Your task to perform on an android device: turn off smart reply in the gmail app Image 0: 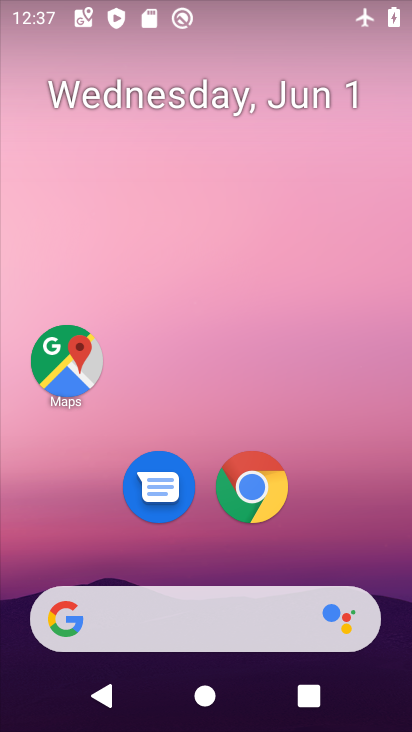
Step 0: drag from (342, 540) to (323, 142)
Your task to perform on an android device: turn off smart reply in the gmail app Image 1: 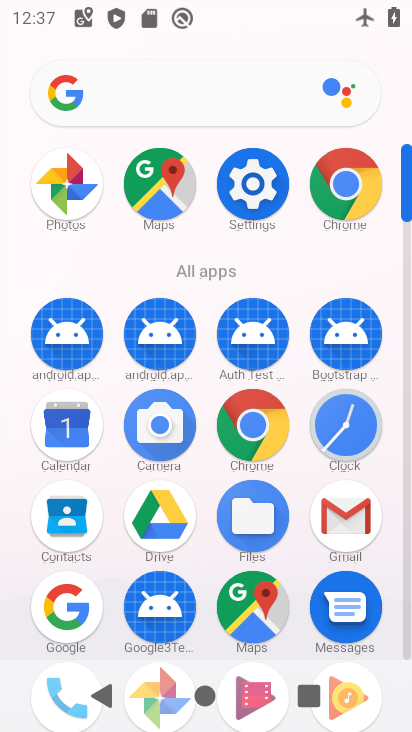
Step 1: click (335, 499)
Your task to perform on an android device: turn off smart reply in the gmail app Image 2: 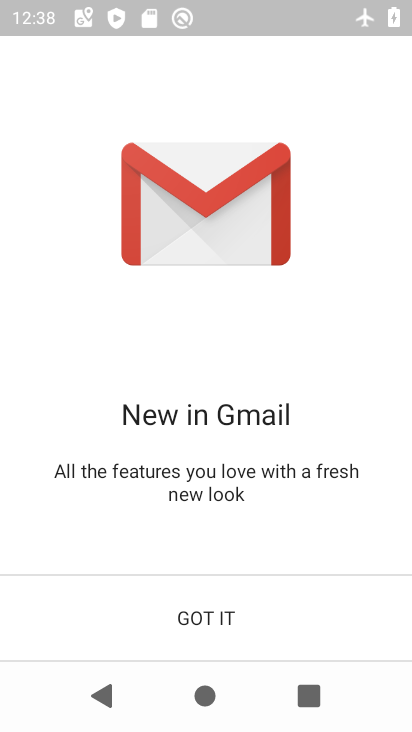
Step 2: click (224, 622)
Your task to perform on an android device: turn off smart reply in the gmail app Image 3: 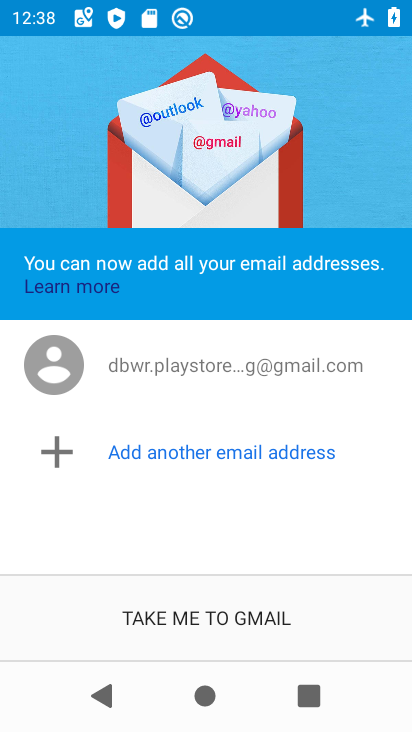
Step 3: click (221, 619)
Your task to perform on an android device: turn off smart reply in the gmail app Image 4: 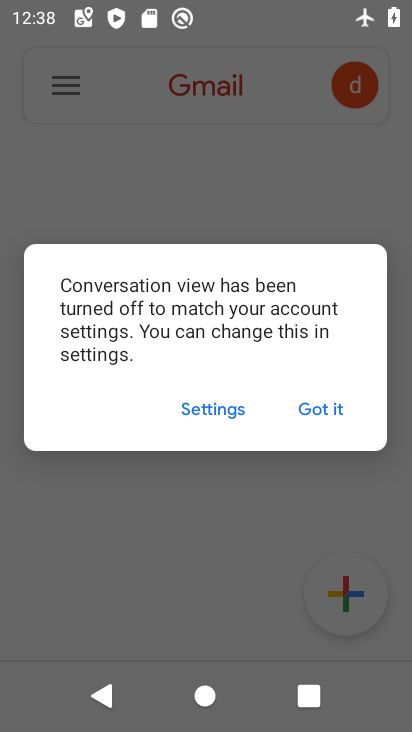
Step 4: click (326, 398)
Your task to perform on an android device: turn off smart reply in the gmail app Image 5: 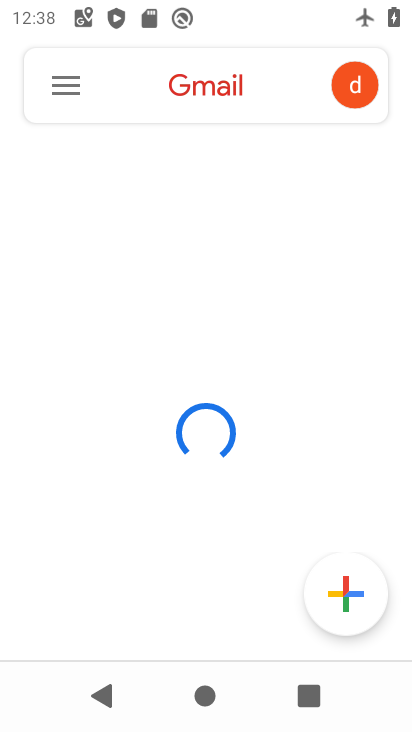
Step 5: click (78, 77)
Your task to perform on an android device: turn off smart reply in the gmail app Image 6: 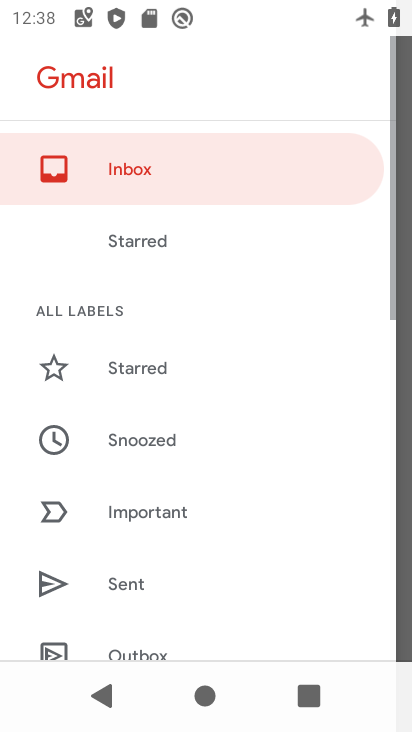
Step 6: click (116, 380)
Your task to perform on an android device: turn off smart reply in the gmail app Image 7: 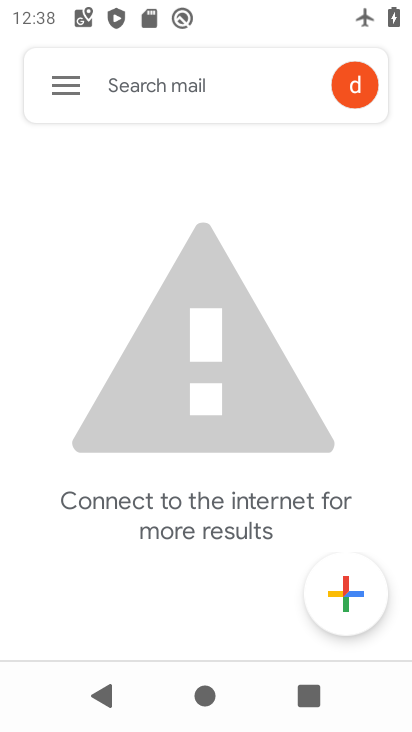
Step 7: click (61, 73)
Your task to perform on an android device: turn off smart reply in the gmail app Image 8: 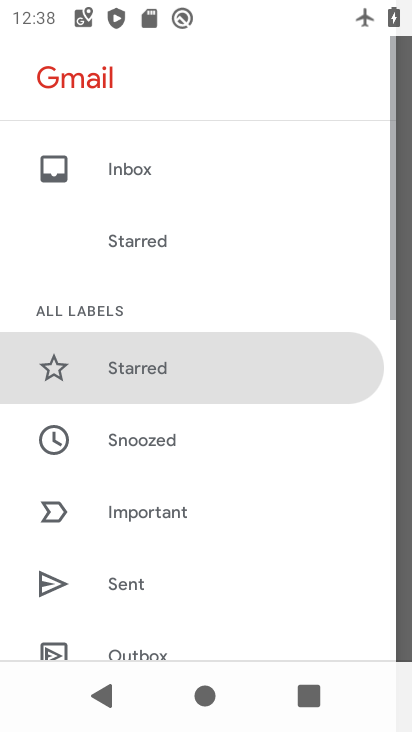
Step 8: drag from (133, 618) to (148, 159)
Your task to perform on an android device: turn off smart reply in the gmail app Image 9: 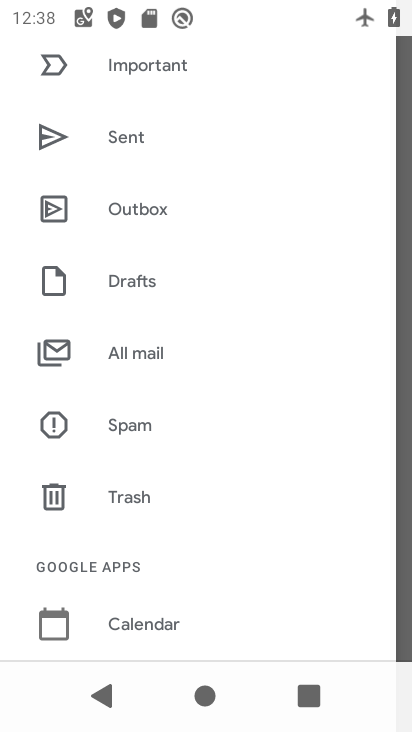
Step 9: drag from (134, 608) to (208, 207)
Your task to perform on an android device: turn off smart reply in the gmail app Image 10: 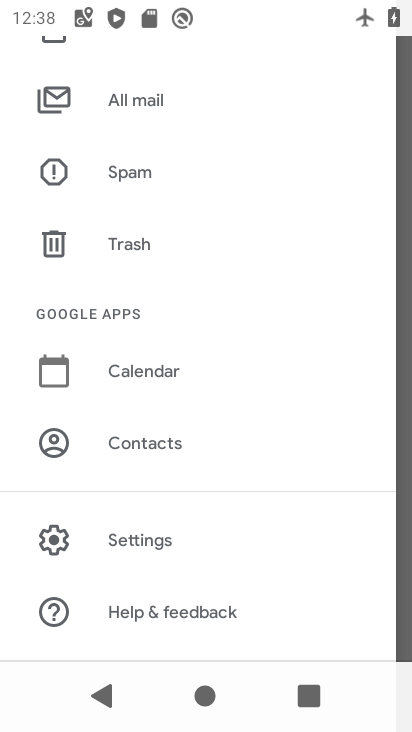
Step 10: click (136, 535)
Your task to perform on an android device: turn off smart reply in the gmail app Image 11: 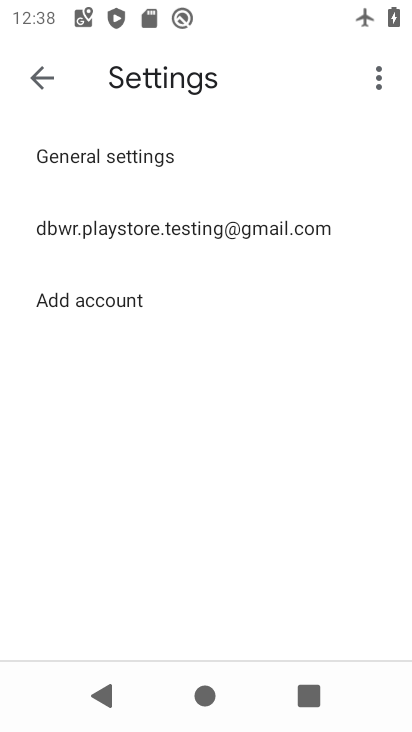
Step 11: click (105, 226)
Your task to perform on an android device: turn off smart reply in the gmail app Image 12: 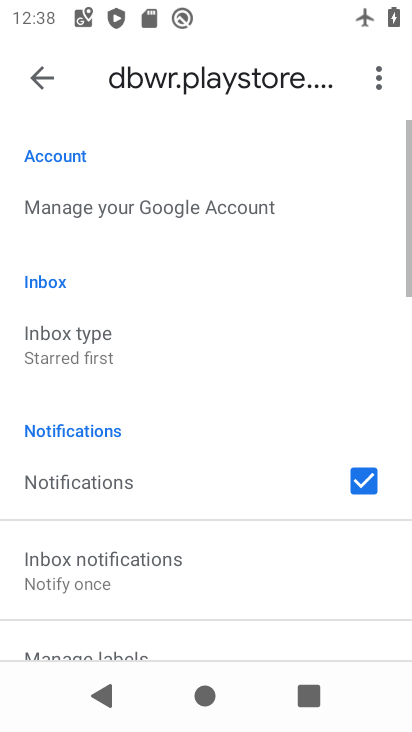
Step 12: drag from (171, 570) to (219, 239)
Your task to perform on an android device: turn off smart reply in the gmail app Image 13: 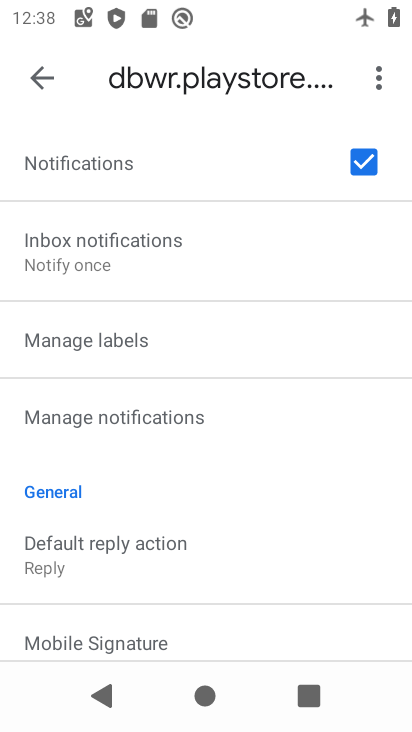
Step 13: drag from (115, 567) to (230, 158)
Your task to perform on an android device: turn off smart reply in the gmail app Image 14: 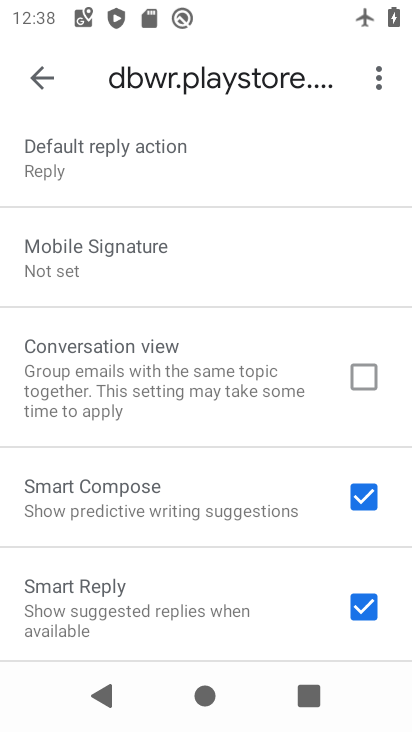
Step 14: drag from (135, 554) to (177, 401)
Your task to perform on an android device: turn off smart reply in the gmail app Image 15: 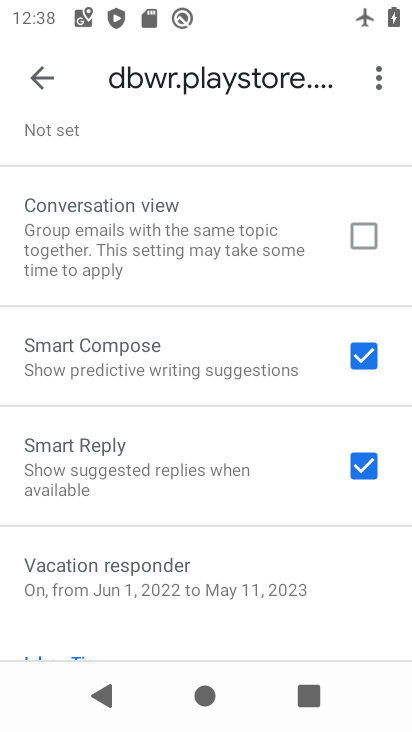
Step 15: click (353, 459)
Your task to perform on an android device: turn off smart reply in the gmail app Image 16: 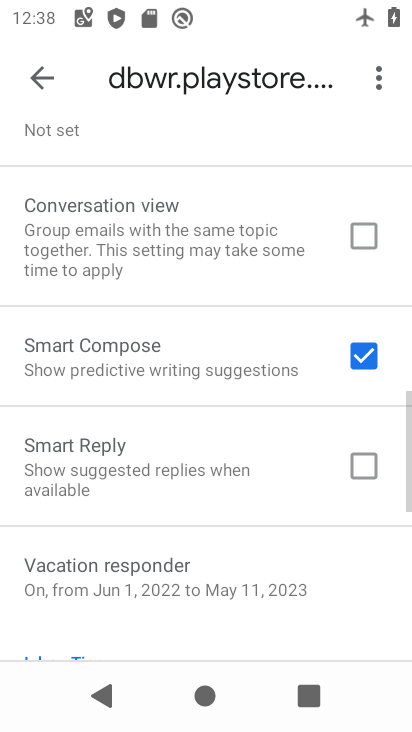
Step 16: task complete